Your task to perform on an android device: turn on notifications settings in the gmail app Image 0: 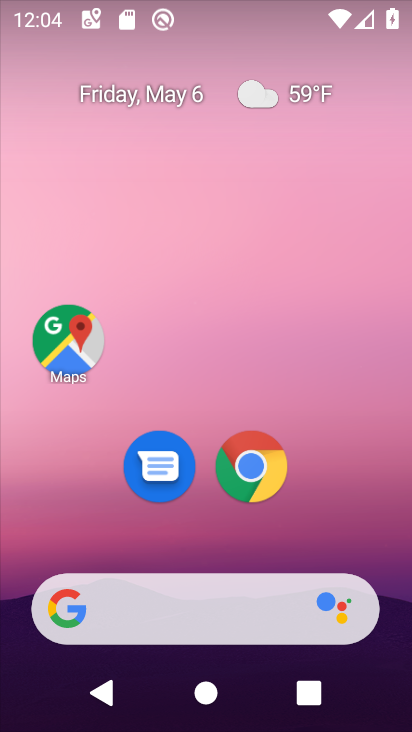
Step 0: drag from (388, 529) to (296, 120)
Your task to perform on an android device: turn on notifications settings in the gmail app Image 1: 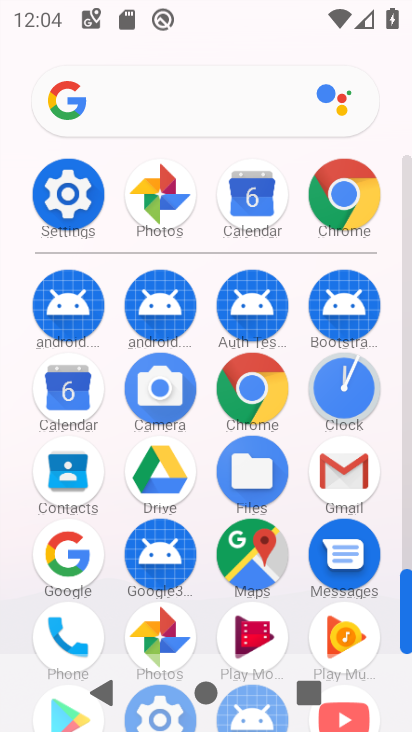
Step 1: click (337, 462)
Your task to perform on an android device: turn on notifications settings in the gmail app Image 2: 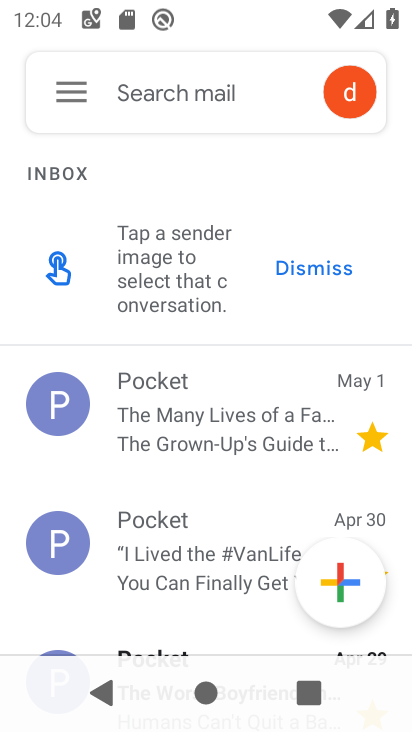
Step 2: click (73, 104)
Your task to perform on an android device: turn on notifications settings in the gmail app Image 3: 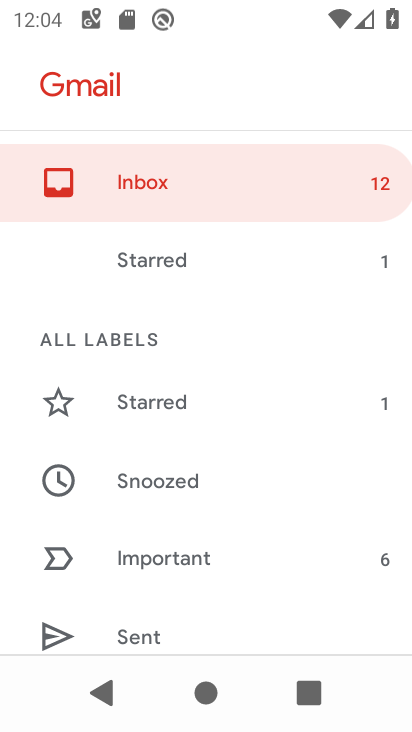
Step 3: drag from (239, 583) to (224, 107)
Your task to perform on an android device: turn on notifications settings in the gmail app Image 4: 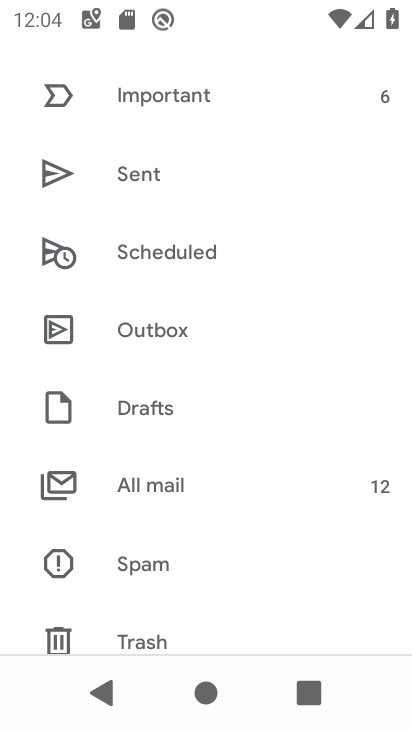
Step 4: drag from (305, 530) to (265, 10)
Your task to perform on an android device: turn on notifications settings in the gmail app Image 5: 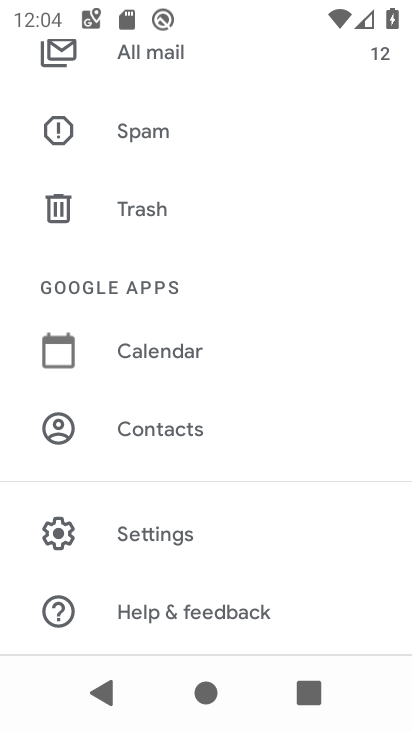
Step 5: click (227, 547)
Your task to perform on an android device: turn on notifications settings in the gmail app Image 6: 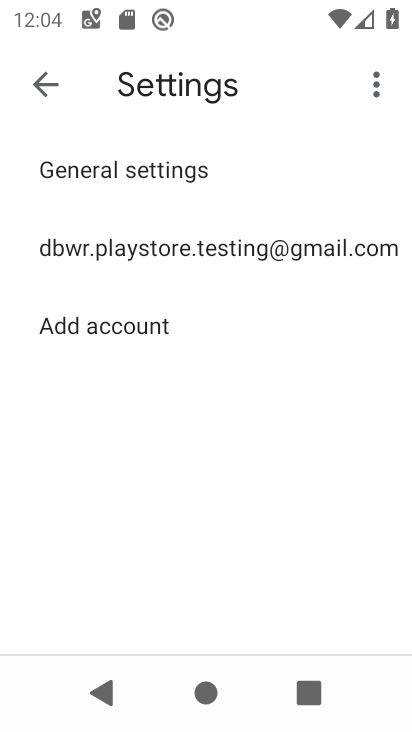
Step 6: click (292, 259)
Your task to perform on an android device: turn on notifications settings in the gmail app Image 7: 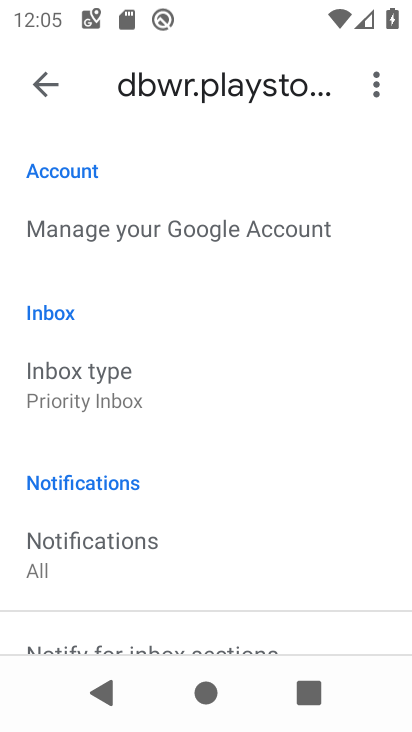
Step 7: drag from (256, 543) to (216, 236)
Your task to perform on an android device: turn on notifications settings in the gmail app Image 8: 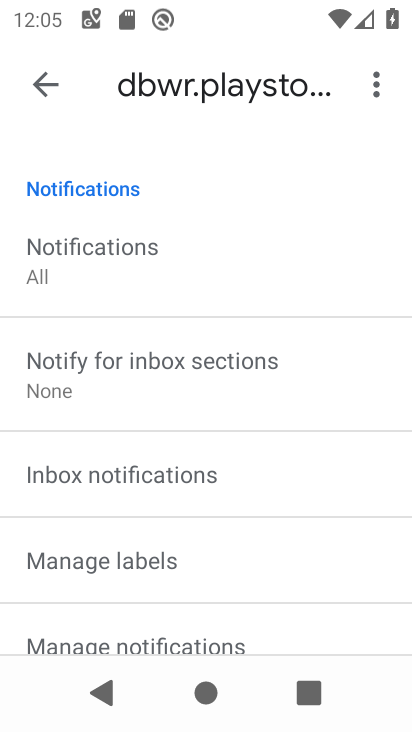
Step 8: drag from (291, 593) to (270, 316)
Your task to perform on an android device: turn on notifications settings in the gmail app Image 9: 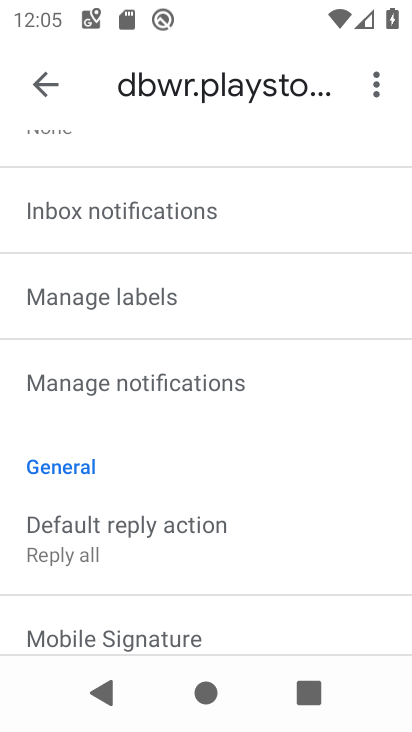
Step 9: click (290, 384)
Your task to perform on an android device: turn on notifications settings in the gmail app Image 10: 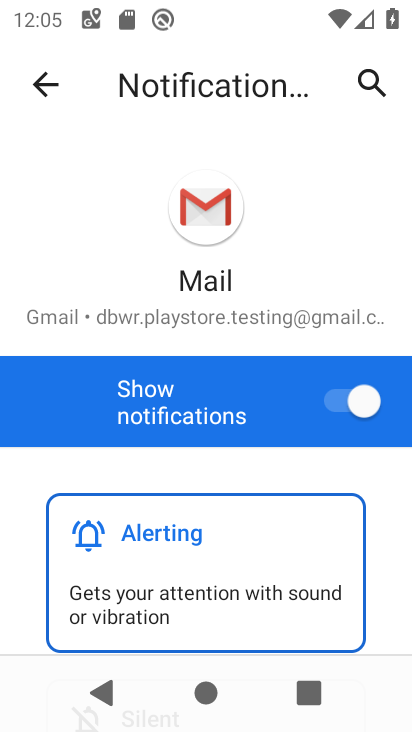
Step 10: drag from (316, 458) to (263, 166)
Your task to perform on an android device: turn on notifications settings in the gmail app Image 11: 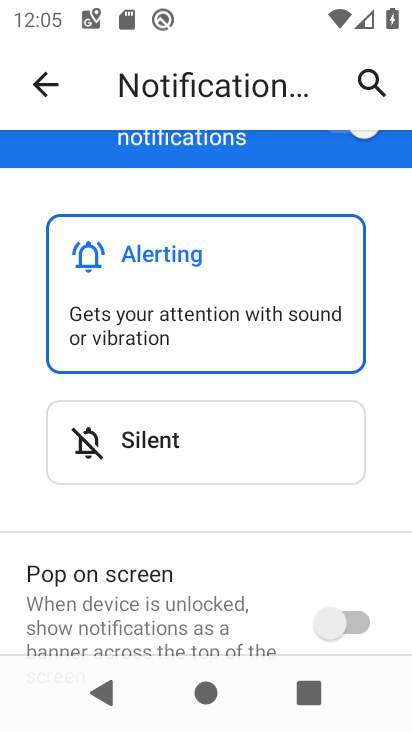
Step 11: click (352, 614)
Your task to perform on an android device: turn on notifications settings in the gmail app Image 12: 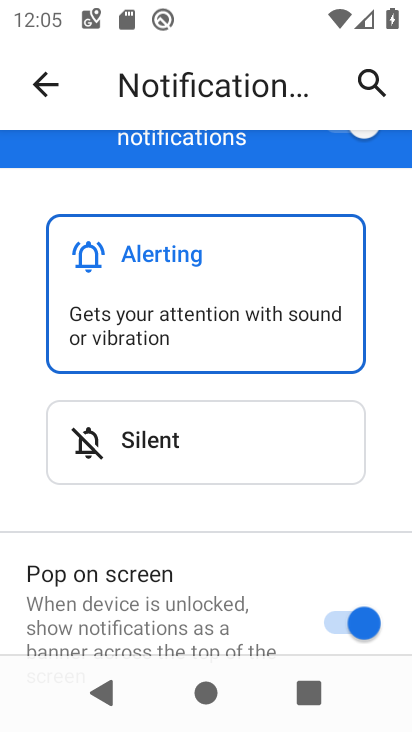
Step 12: task complete